Your task to perform on an android device: Open the calendar and show me this week's events? Image 0: 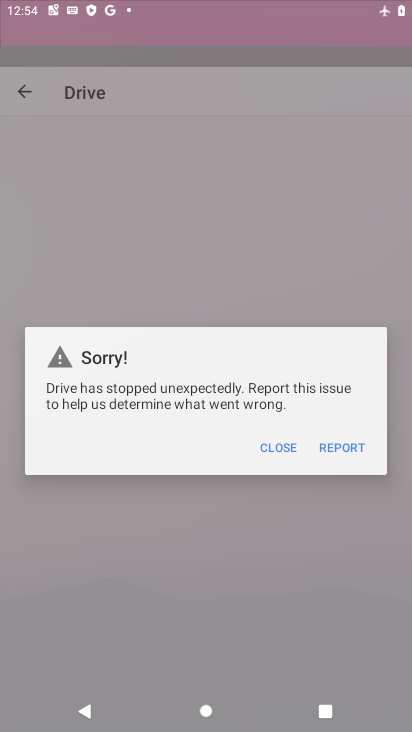
Step 0: drag from (210, 620) to (324, 16)
Your task to perform on an android device: Open the calendar and show me this week's events? Image 1: 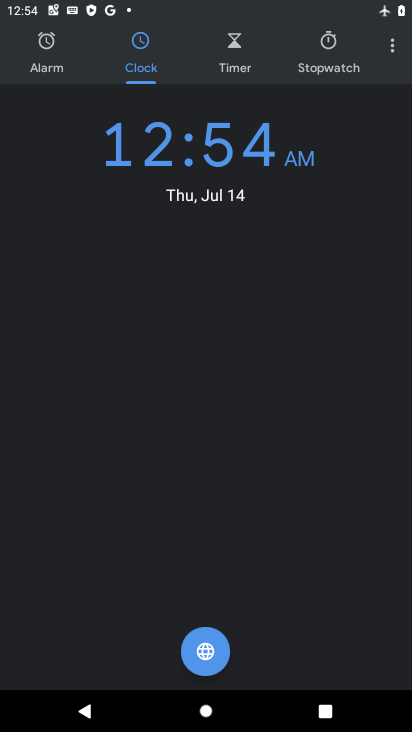
Step 1: press home button
Your task to perform on an android device: Open the calendar and show me this week's events? Image 2: 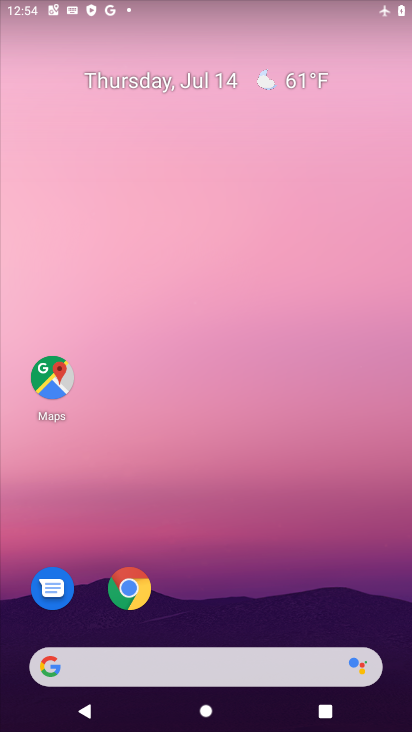
Step 2: drag from (224, 584) to (247, 211)
Your task to perform on an android device: Open the calendar and show me this week's events? Image 3: 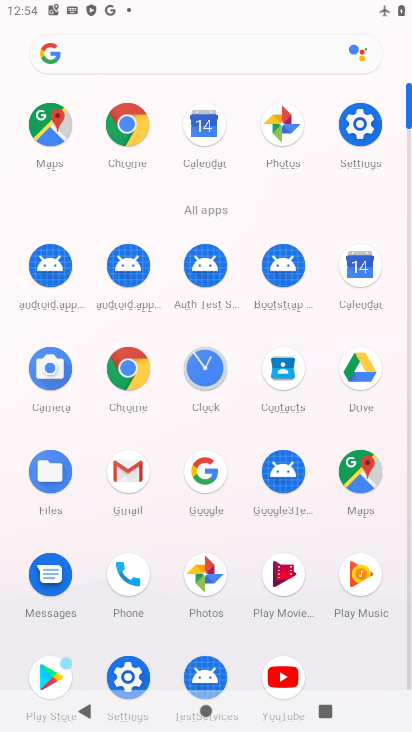
Step 3: click (373, 295)
Your task to perform on an android device: Open the calendar and show me this week's events? Image 4: 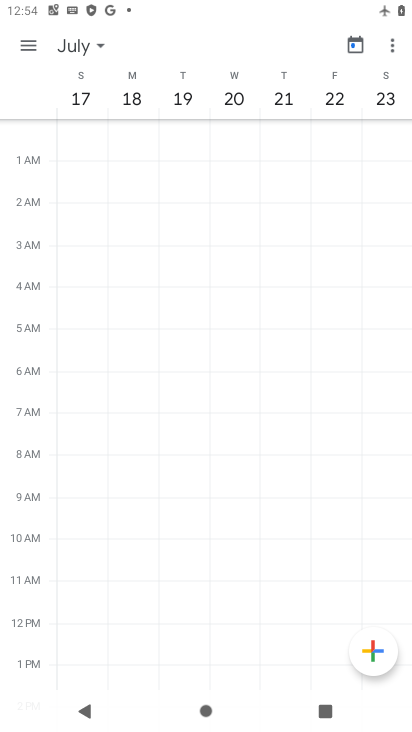
Step 4: drag from (131, 102) to (410, 108)
Your task to perform on an android device: Open the calendar and show me this week's events? Image 5: 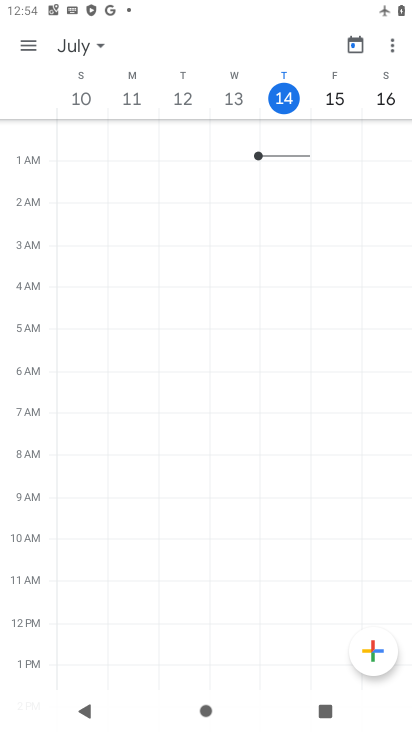
Step 5: click (35, 45)
Your task to perform on an android device: Open the calendar and show me this week's events? Image 6: 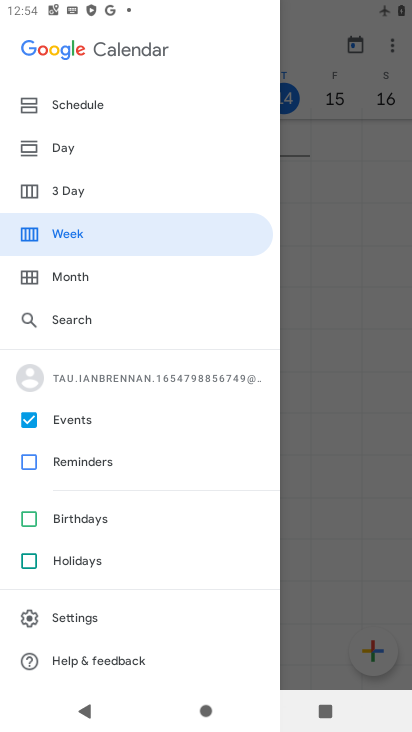
Step 6: click (122, 227)
Your task to perform on an android device: Open the calendar and show me this week's events? Image 7: 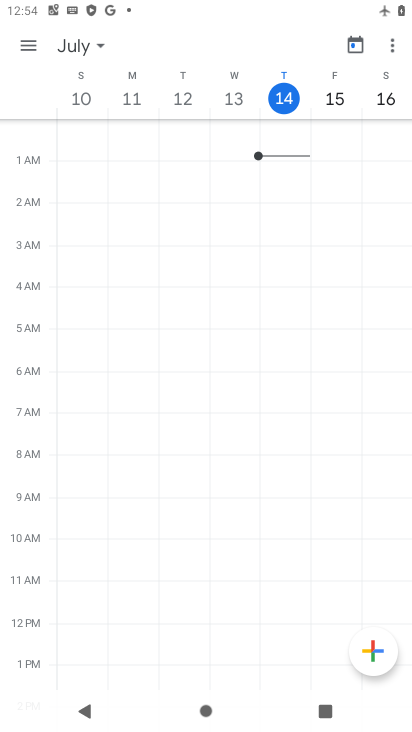
Step 7: task complete